Your task to perform on an android device: check android version Image 0: 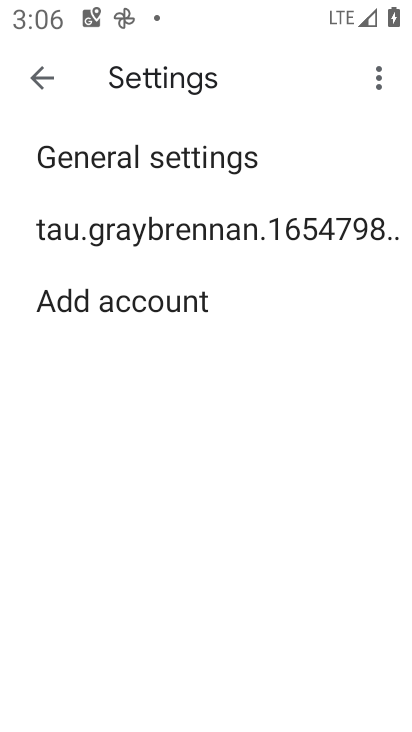
Step 0: press home button
Your task to perform on an android device: check android version Image 1: 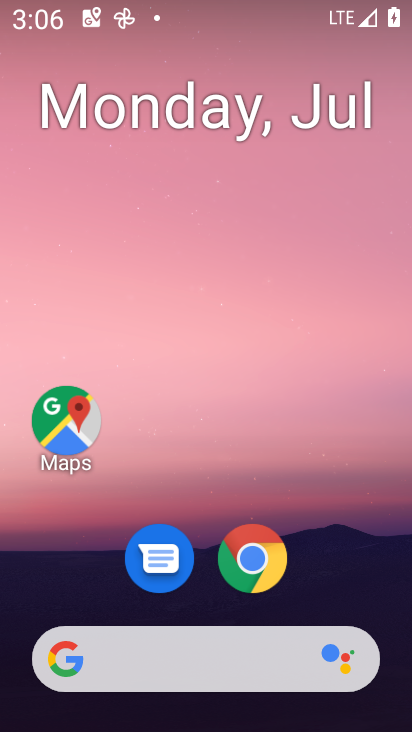
Step 1: drag from (350, 487) to (329, 38)
Your task to perform on an android device: check android version Image 2: 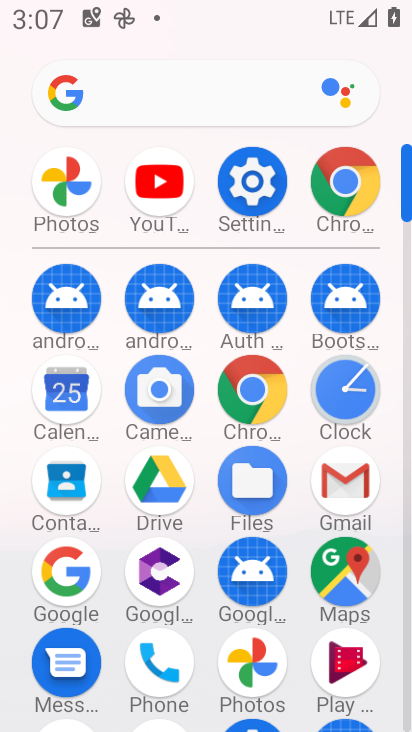
Step 2: click (262, 185)
Your task to perform on an android device: check android version Image 3: 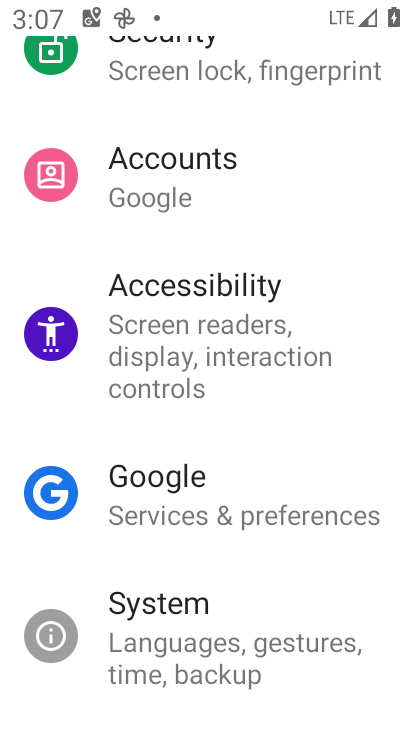
Step 3: drag from (361, 453) to (354, 339)
Your task to perform on an android device: check android version Image 4: 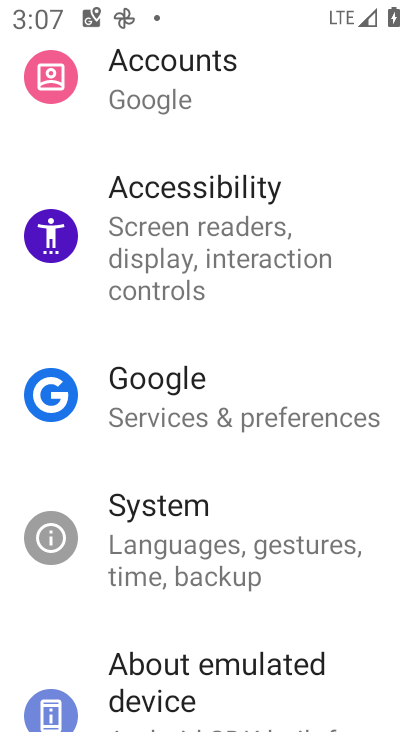
Step 4: drag from (336, 585) to (334, 382)
Your task to perform on an android device: check android version Image 5: 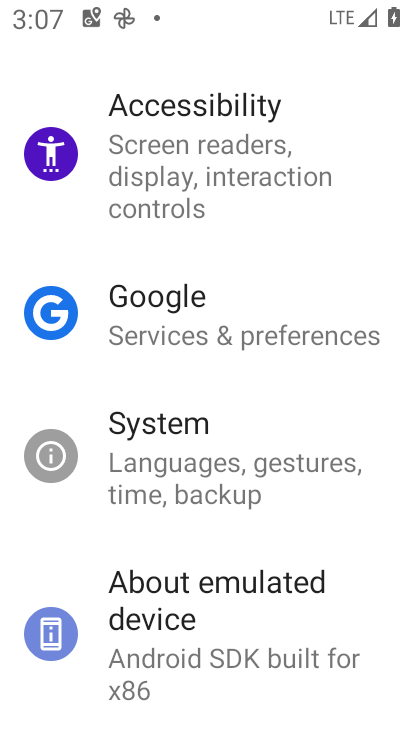
Step 5: drag from (350, 590) to (346, 442)
Your task to perform on an android device: check android version Image 6: 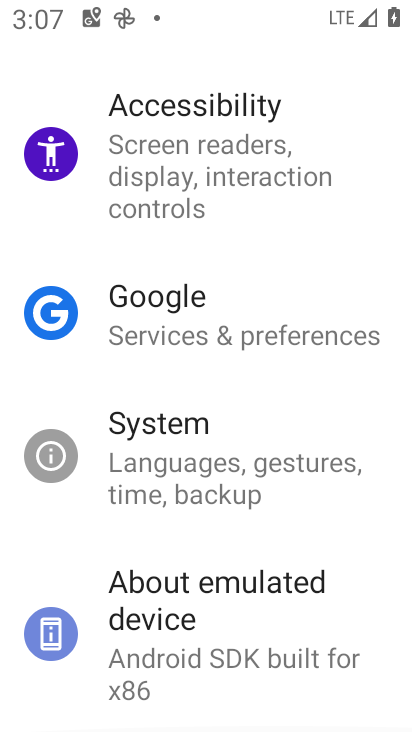
Step 6: click (320, 472)
Your task to perform on an android device: check android version Image 7: 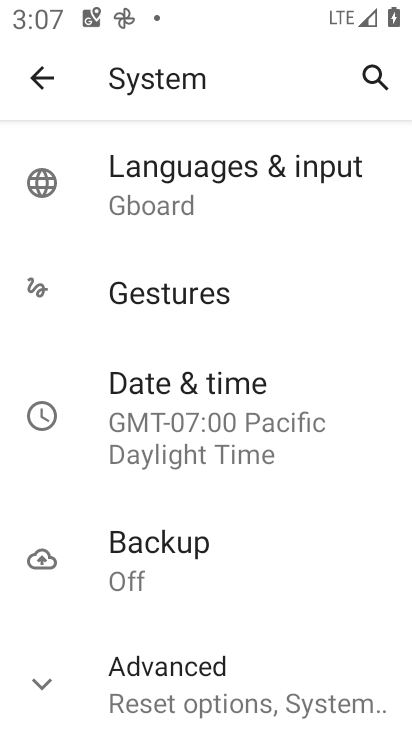
Step 7: click (288, 687)
Your task to perform on an android device: check android version Image 8: 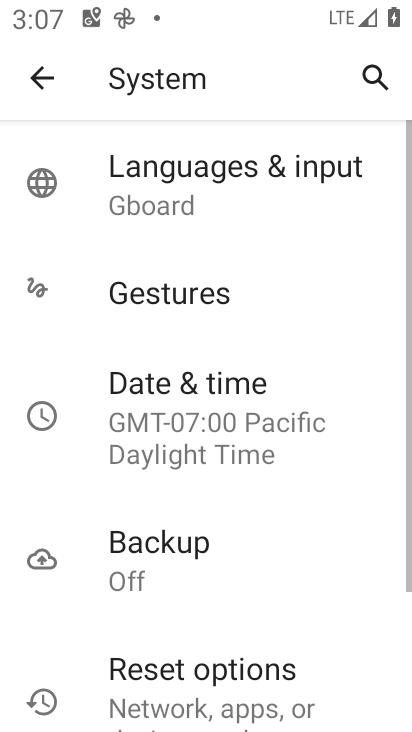
Step 8: drag from (340, 578) to (330, 370)
Your task to perform on an android device: check android version Image 9: 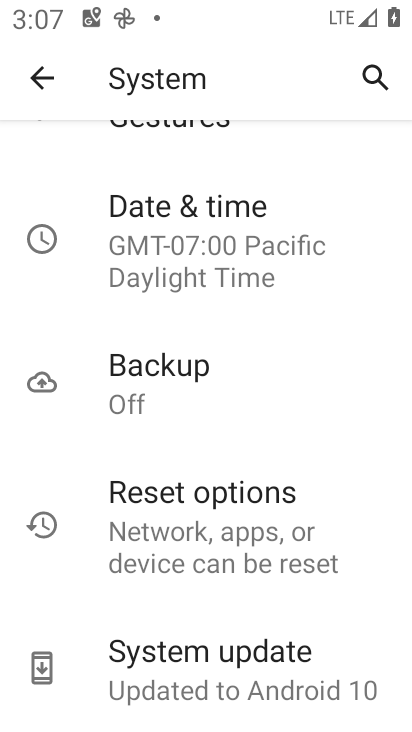
Step 9: drag from (327, 632) to (325, 445)
Your task to perform on an android device: check android version Image 10: 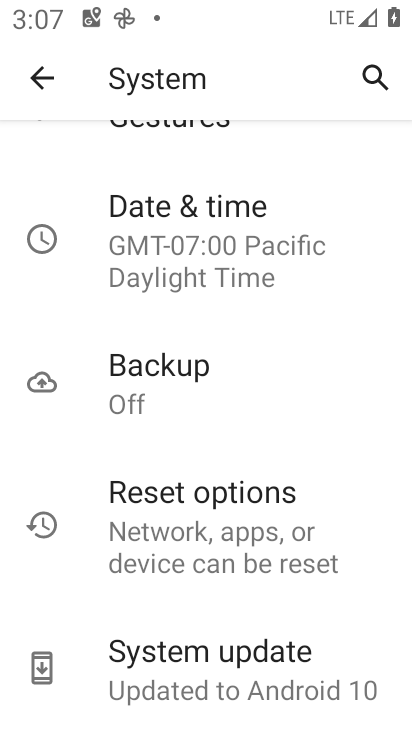
Step 10: click (239, 675)
Your task to perform on an android device: check android version Image 11: 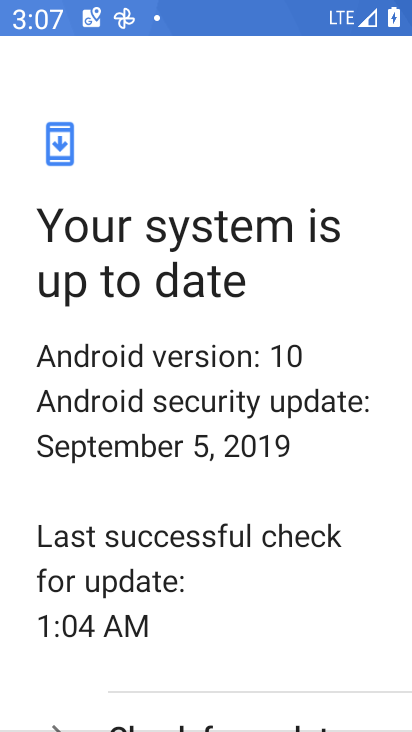
Step 11: task complete